Your task to perform on an android device: uninstall "ColorNote Notepad Notes" Image 0: 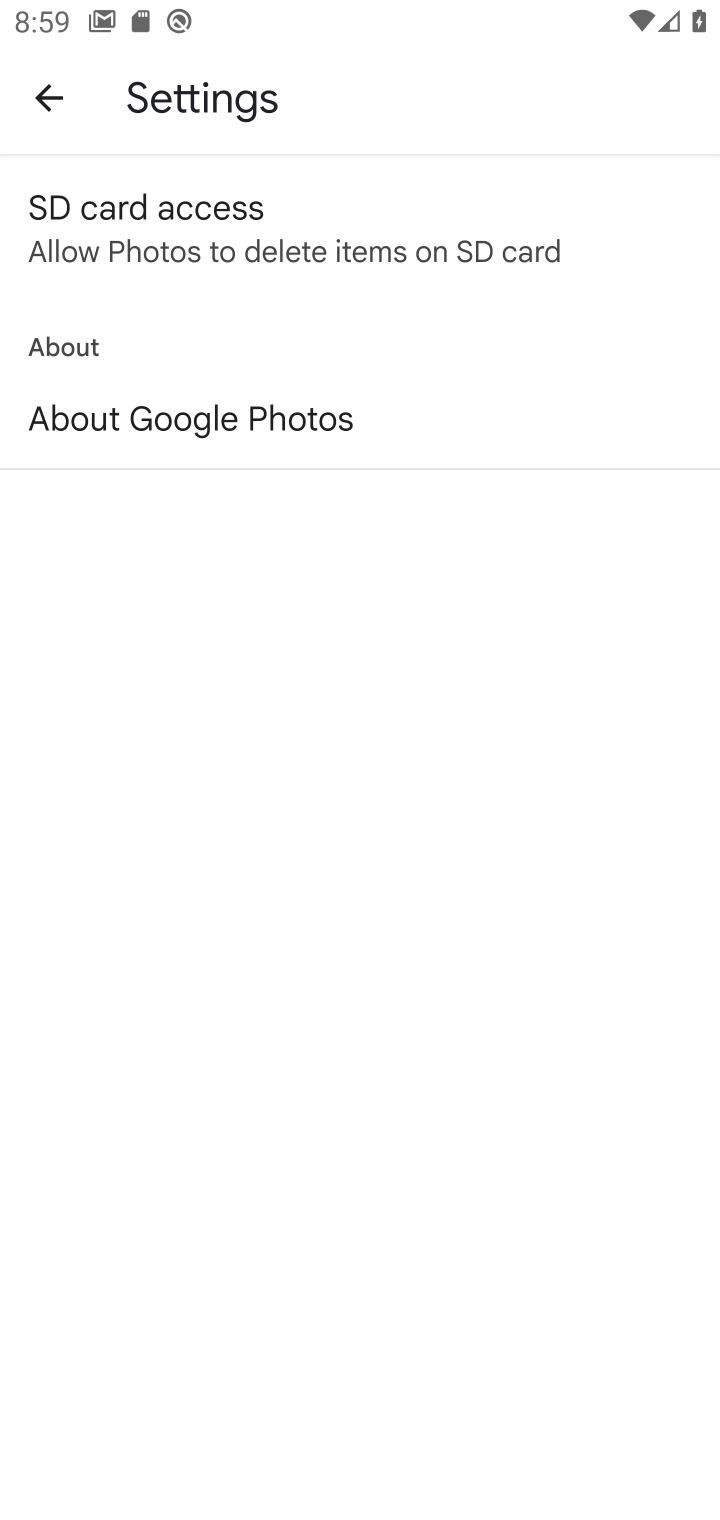
Step 0: press home button
Your task to perform on an android device: uninstall "ColorNote Notepad Notes" Image 1: 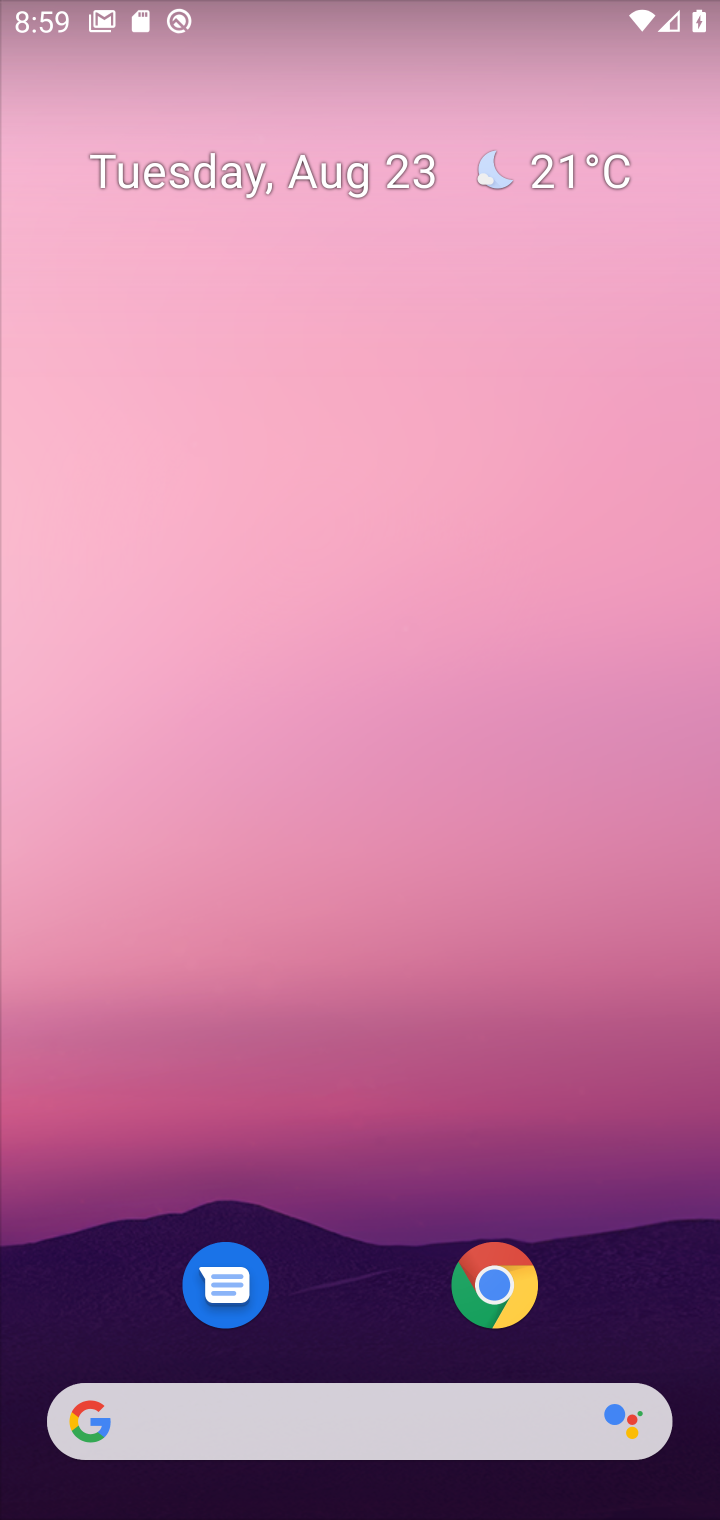
Step 1: drag from (678, 1356) to (551, 334)
Your task to perform on an android device: uninstall "ColorNote Notepad Notes" Image 2: 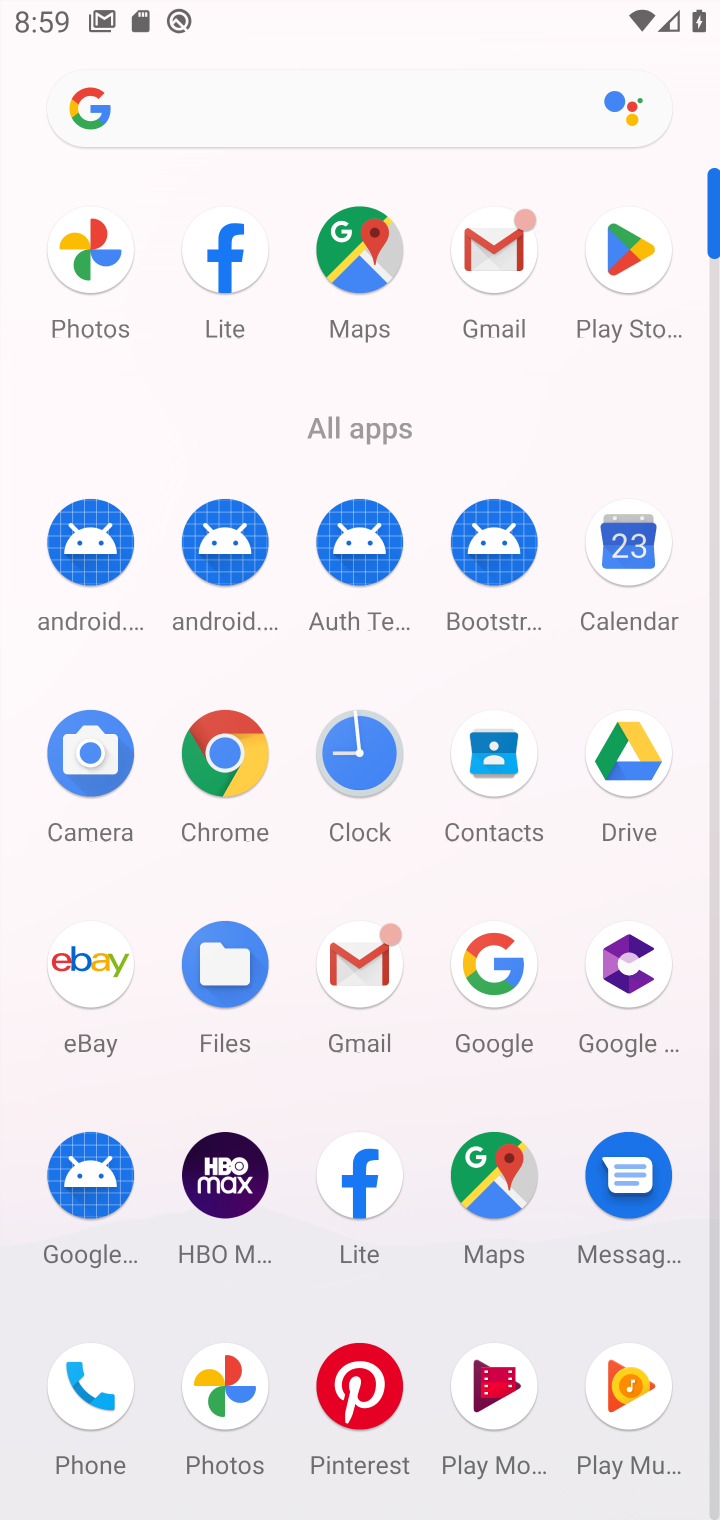
Step 2: drag from (423, 1301) to (414, 670)
Your task to perform on an android device: uninstall "ColorNote Notepad Notes" Image 3: 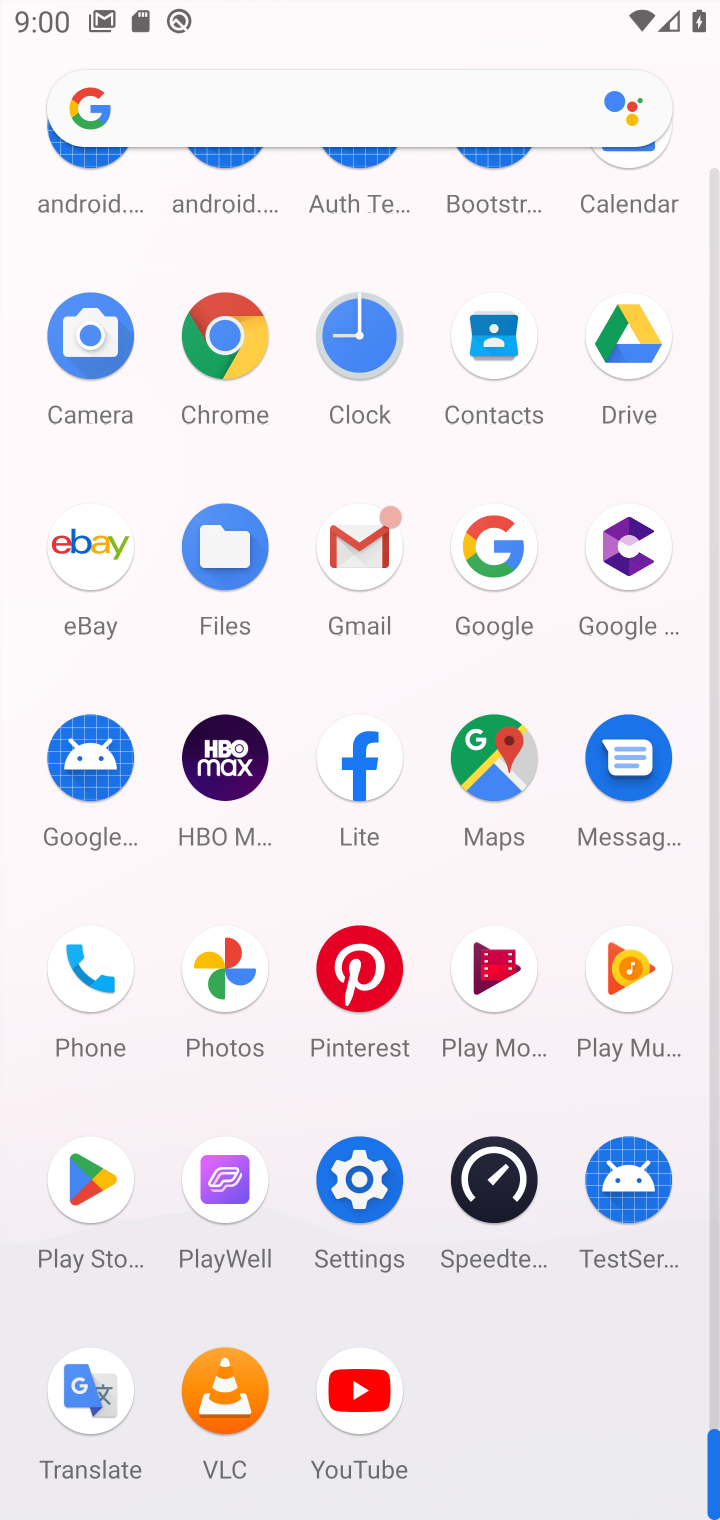
Step 3: click (99, 1176)
Your task to perform on an android device: uninstall "ColorNote Notepad Notes" Image 4: 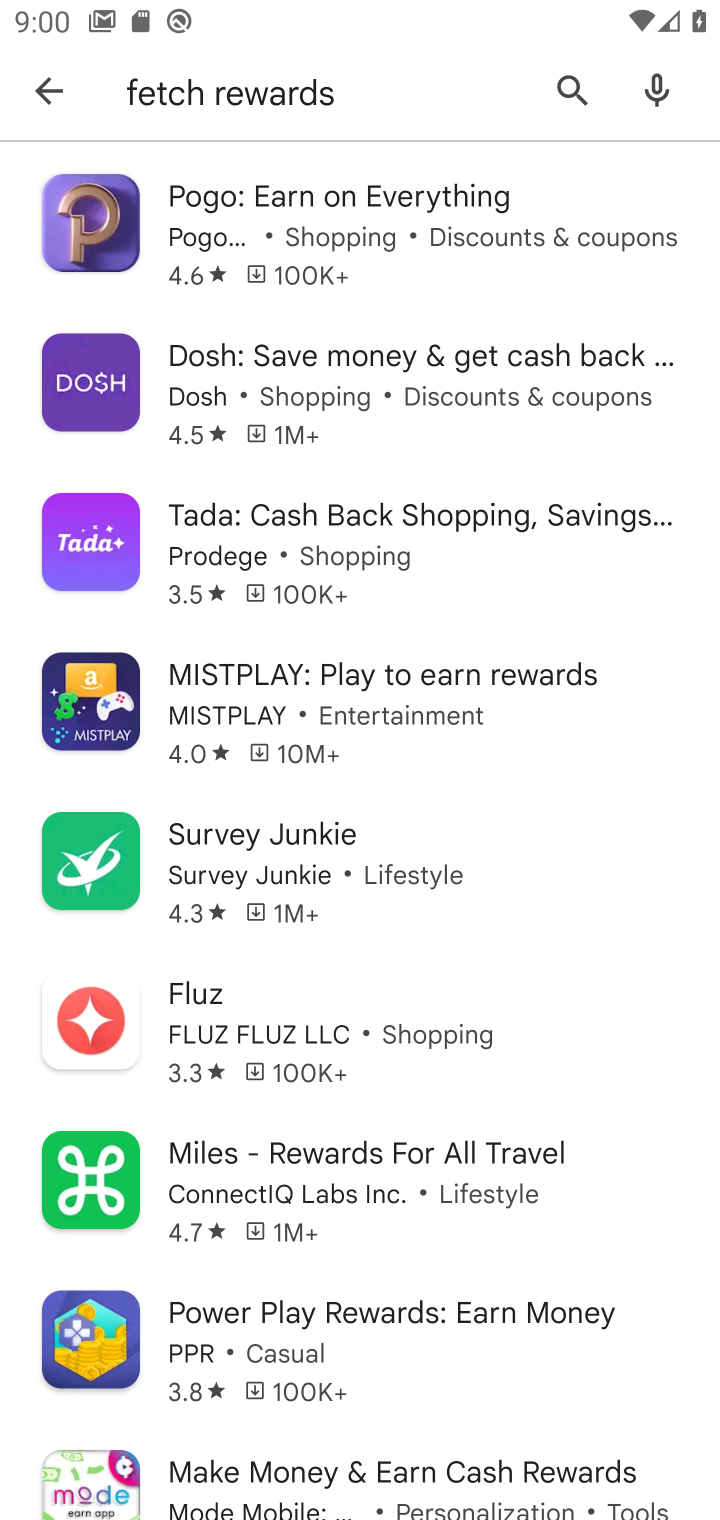
Step 4: click (569, 94)
Your task to perform on an android device: uninstall "ColorNote Notepad Notes" Image 5: 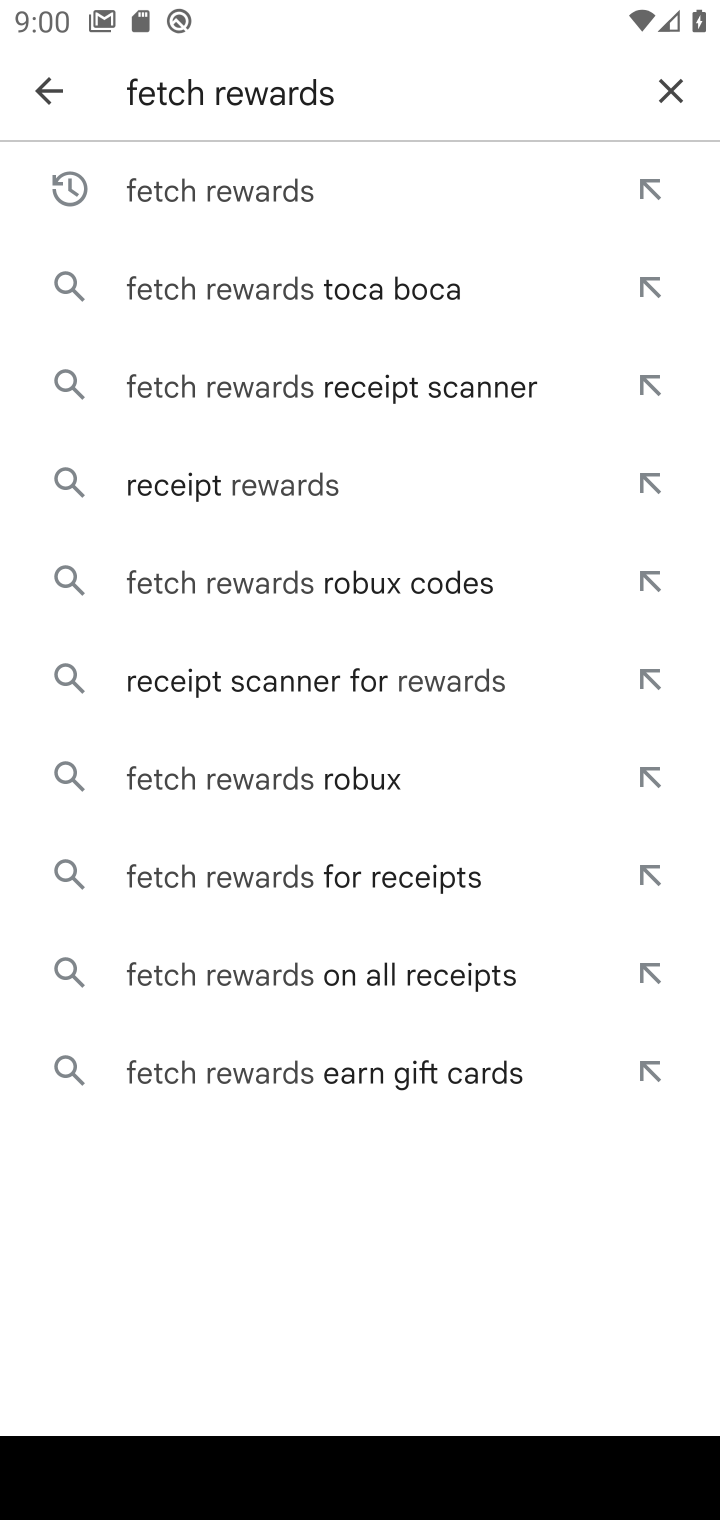
Step 5: click (666, 88)
Your task to perform on an android device: uninstall "ColorNote Notepad Notes" Image 6: 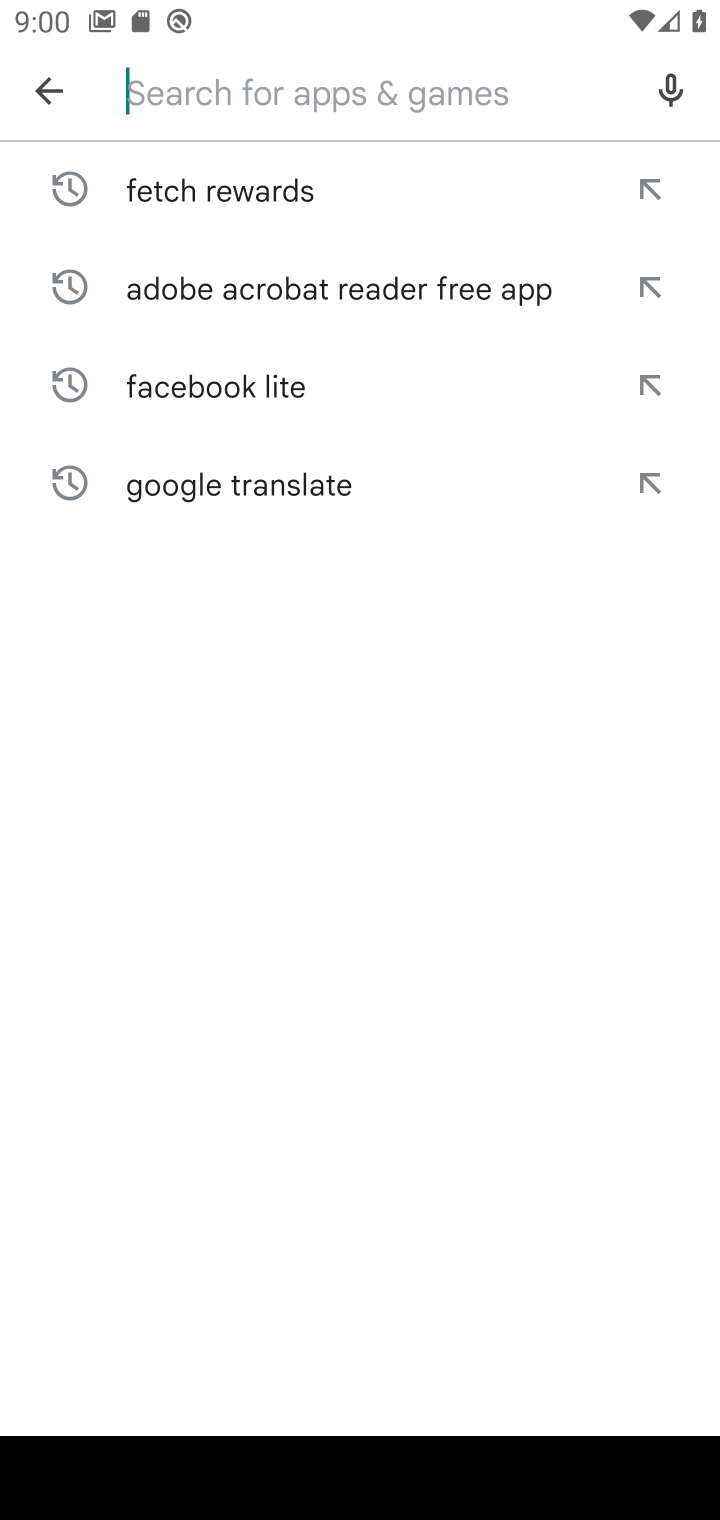
Step 6: type "ColorNote Notepad Notes"
Your task to perform on an android device: uninstall "ColorNote Notepad Notes" Image 7: 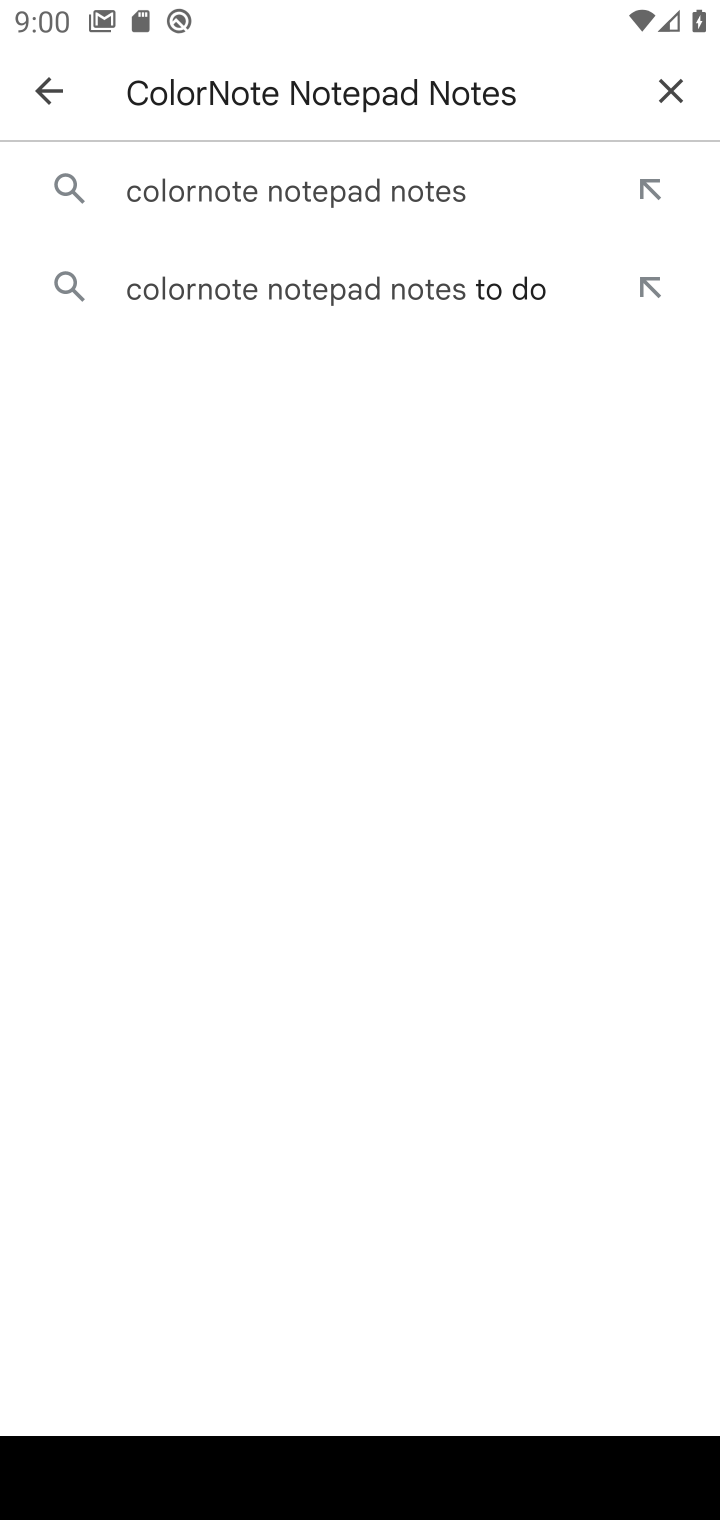
Step 7: click (233, 183)
Your task to perform on an android device: uninstall "ColorNote Notepad Notes" Image 8: 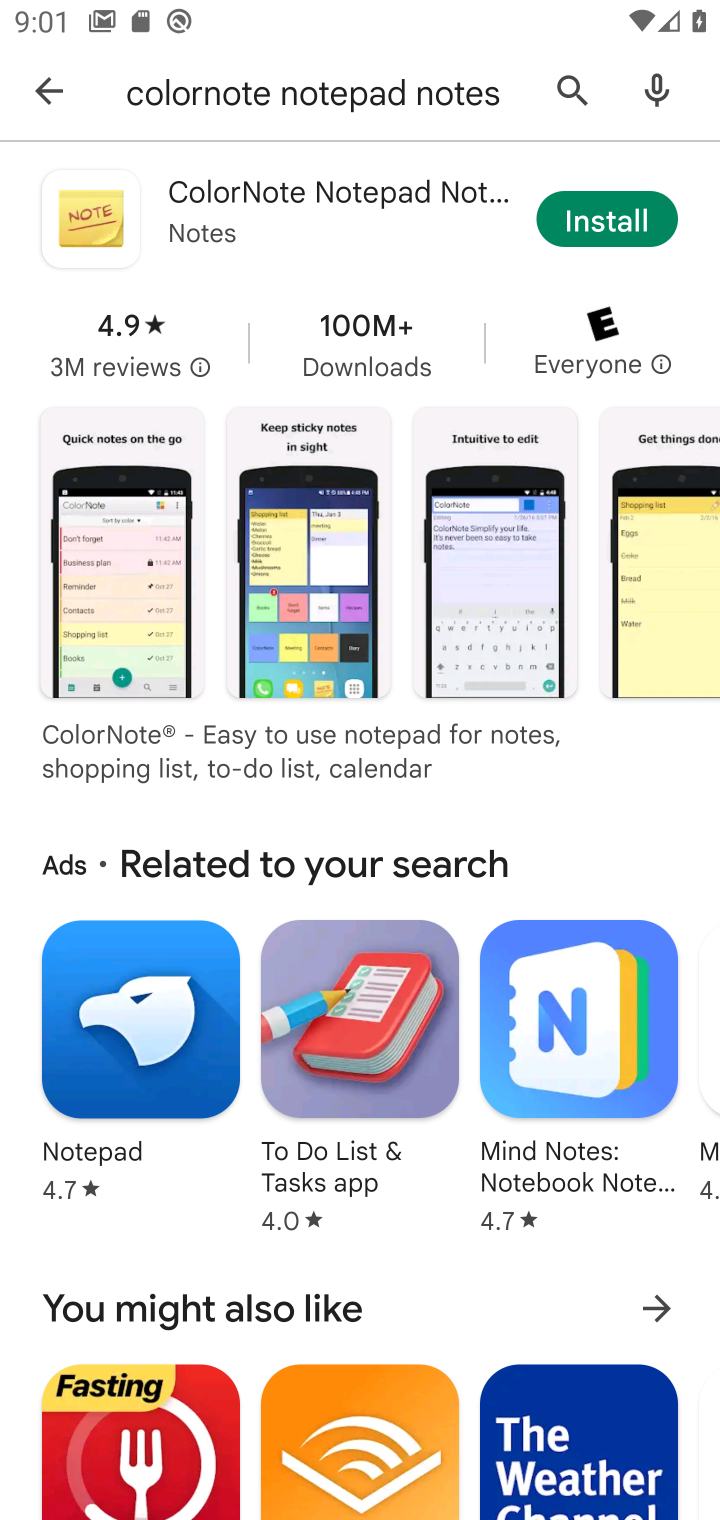
Step 8: task complete